Your task to perform on an android device: check data usage Image 0: 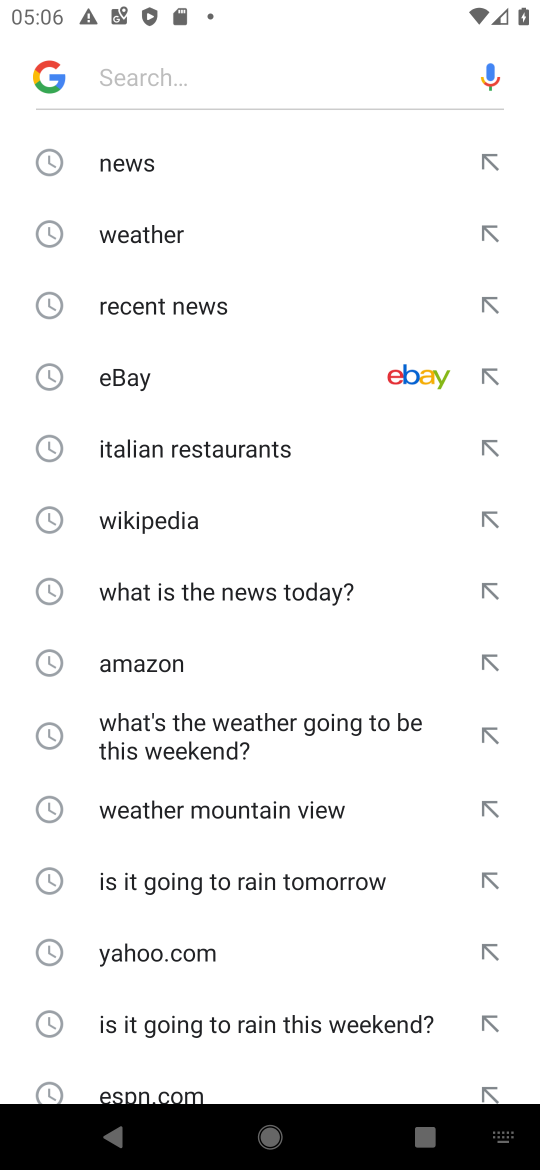
Step 0: press back button
Your task to perform on an android device: check data usage Image 1: 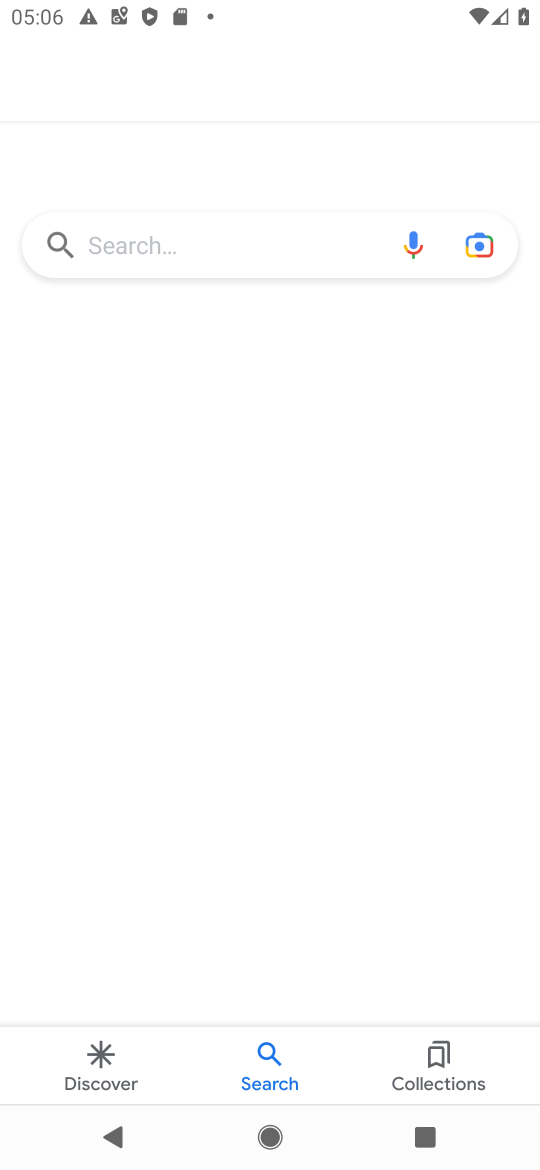
Step 1: press back button
Your task to perform on an android device: check data usage Image 2: 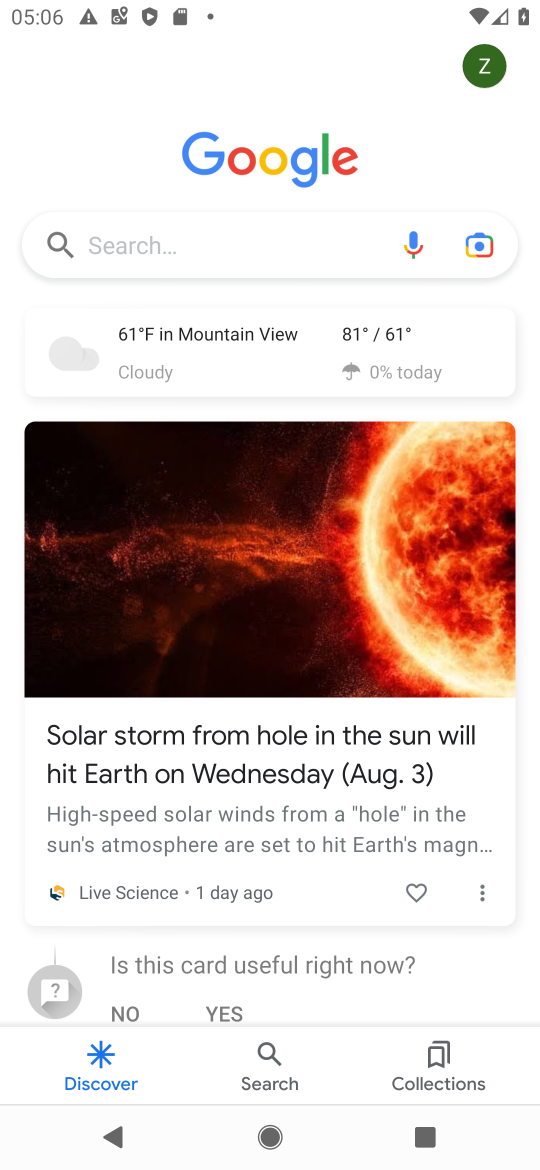
Step 2: press back button
Your task to perform on an android device: check data usage Image 3: 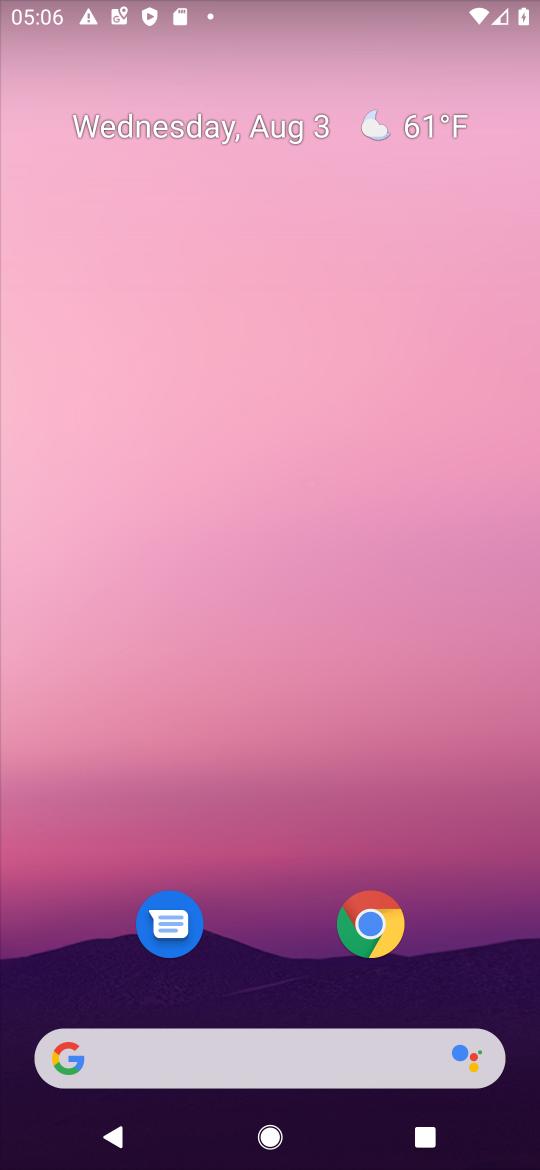
Step 3: drag from (249, 715) to (249, 359)
Your task to perform on an android device: check data usage Image 4: 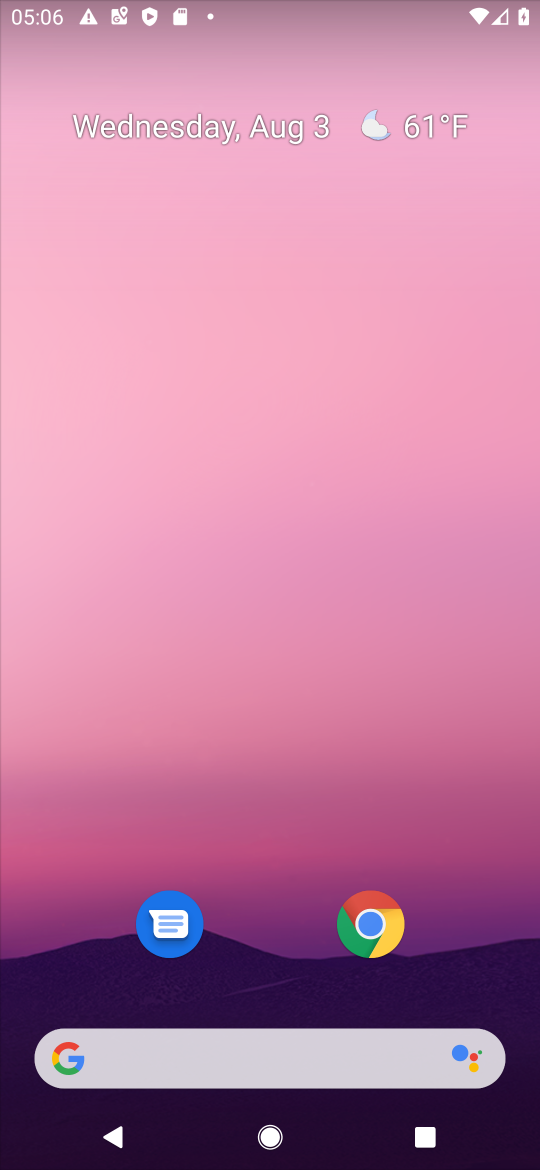
Step 4: drag from (268, 906) to (254, 310)
Your task to perform on an android device: check data usage Image 5: 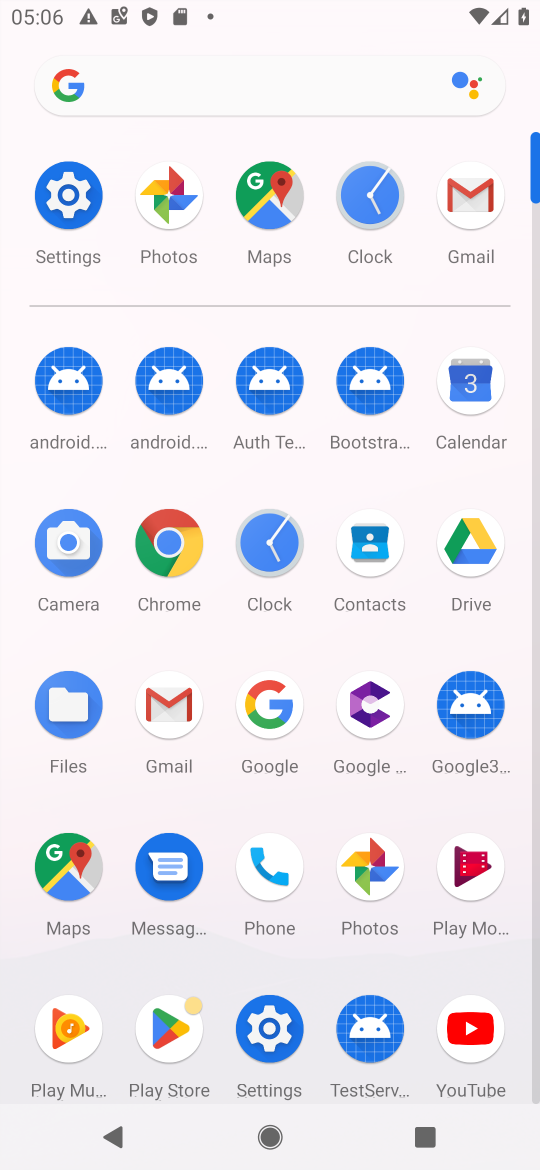
Step 5: click (72, 192)
Your task to perform on an android device: check data usage Image 6: 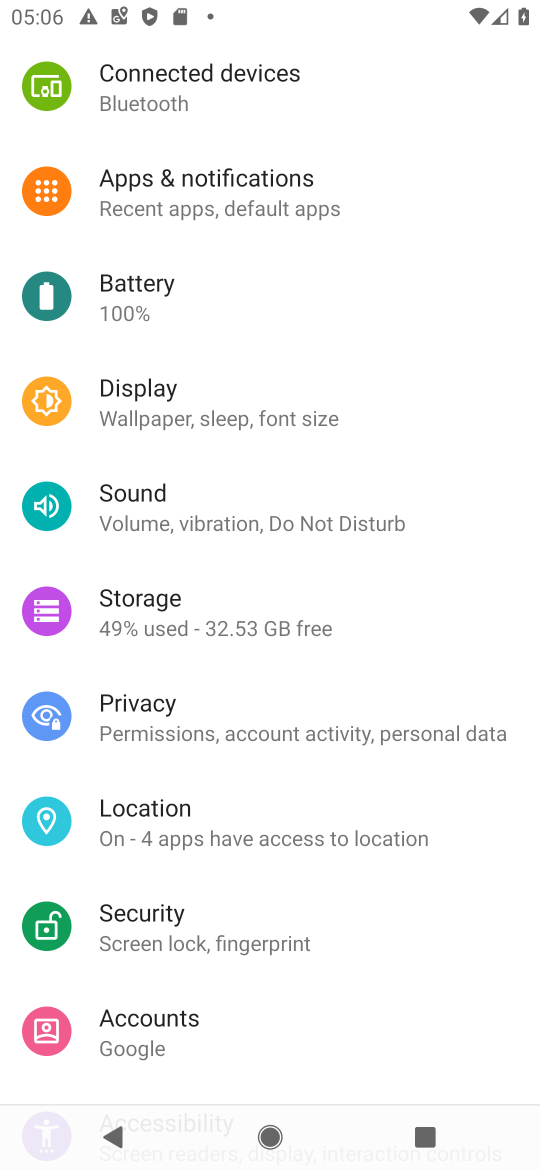
Step 6: drag from (280, 307) to (359, 956)
Your task to perform on an android device: check data usage Image 7: 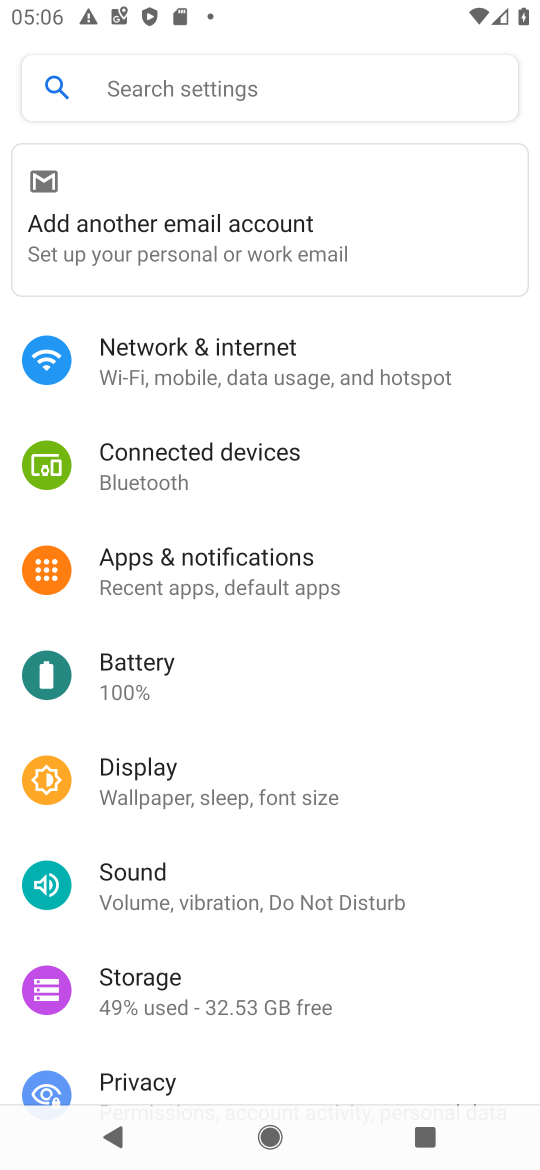
Step 7: click (227, 381)
Your task to perform on an android device: check data usage Image 8: 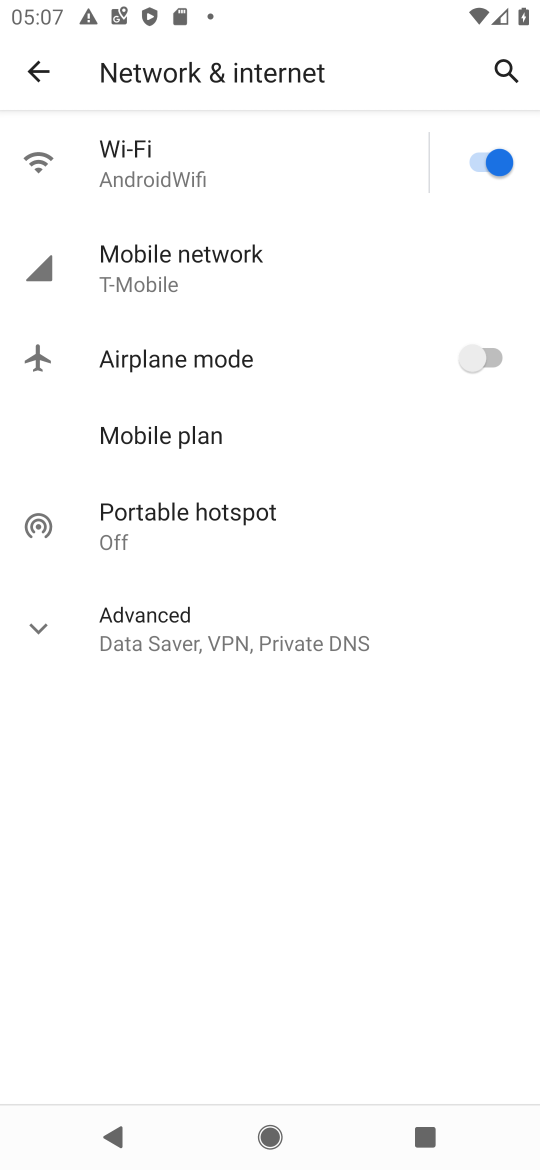
Step 8: click (288, 315)
Your task to perform on an android device: check data usage Image 9: 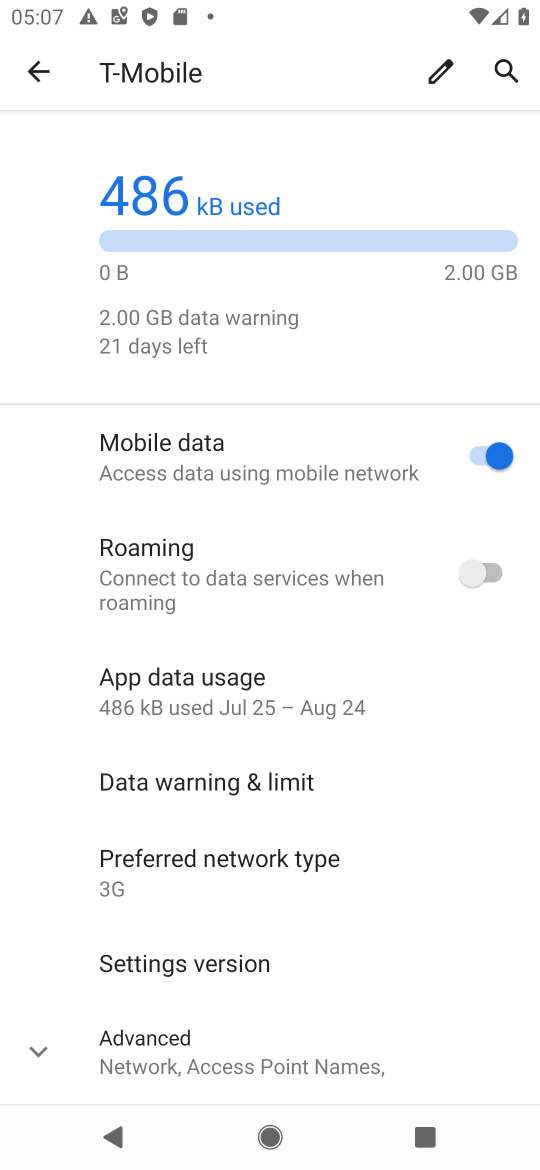
Step 9: click (247, 721)
Your task to perform on an android device: check data usage Image 10: 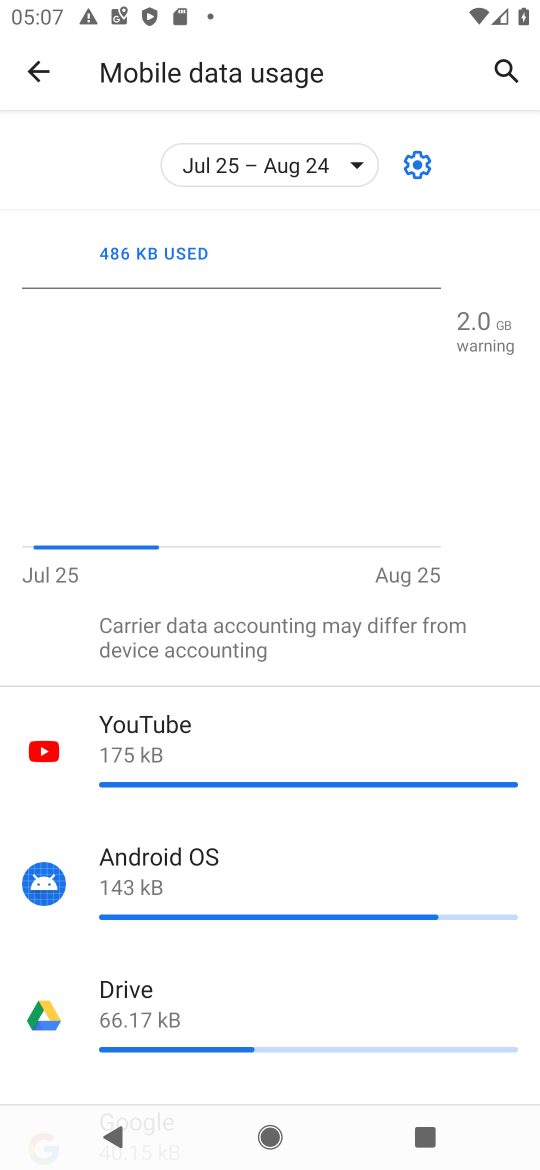
Step 10: task complete